Your task to perform on an android device: turn on priority inbox in the gmail app Image 0: 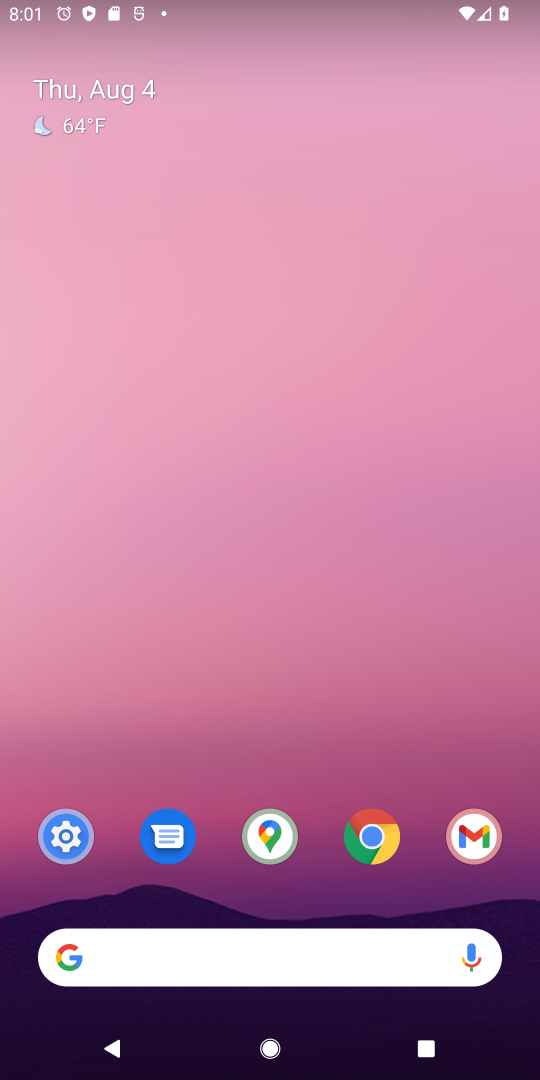
Step 0: click (483, 835)
Your task to perform on an android device: turn on priority inbox in the gmail app Image 1: 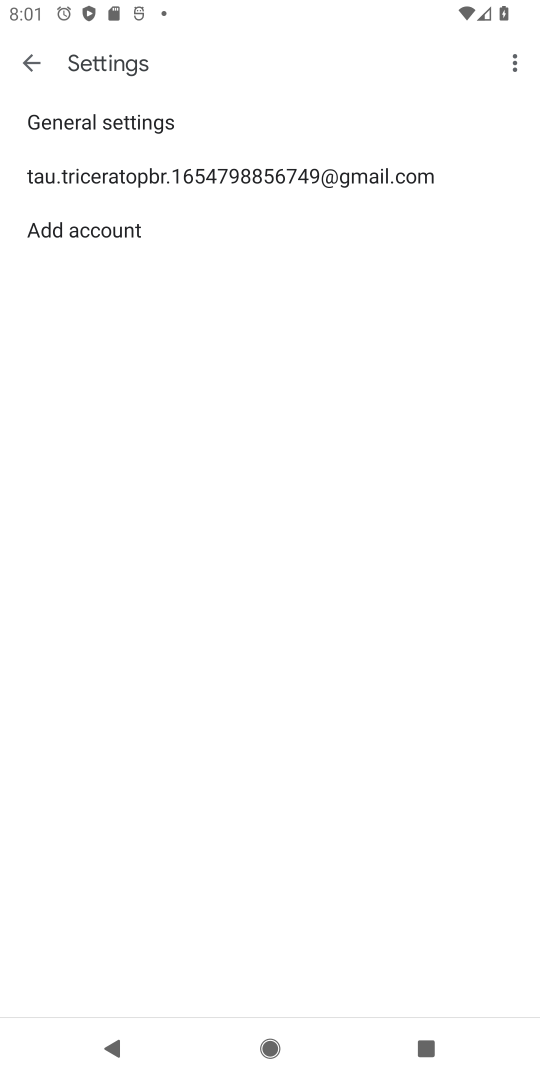
Step 1: click (38, 51)
Your task to perform on an android device: turn on priority inbox in the gmail app Image 2: 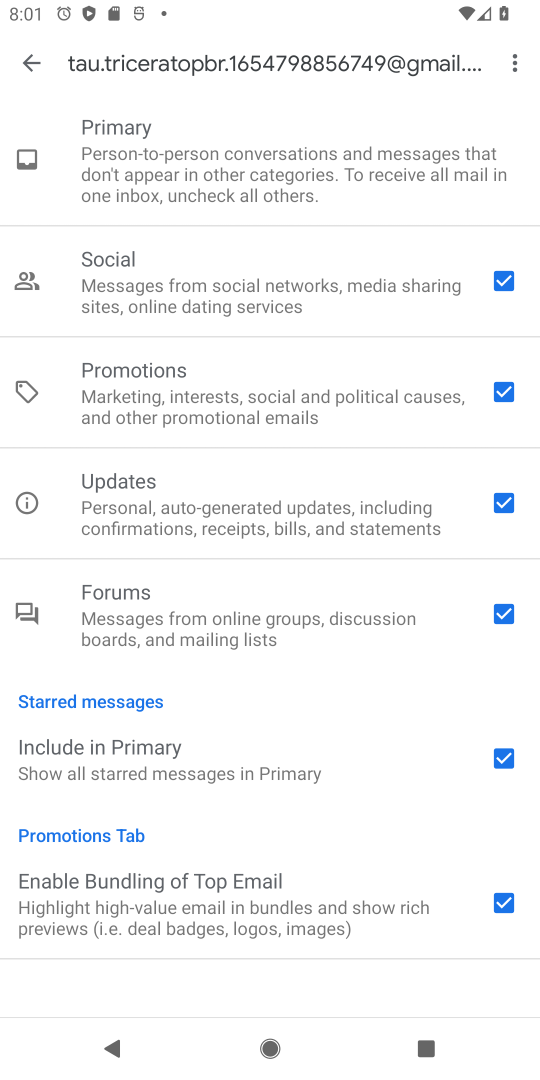
Step 2: drag from (291, 170) to (310, 1016)
Your task to perform on an android device: turn on priority inbox in the gmail app Image 3: 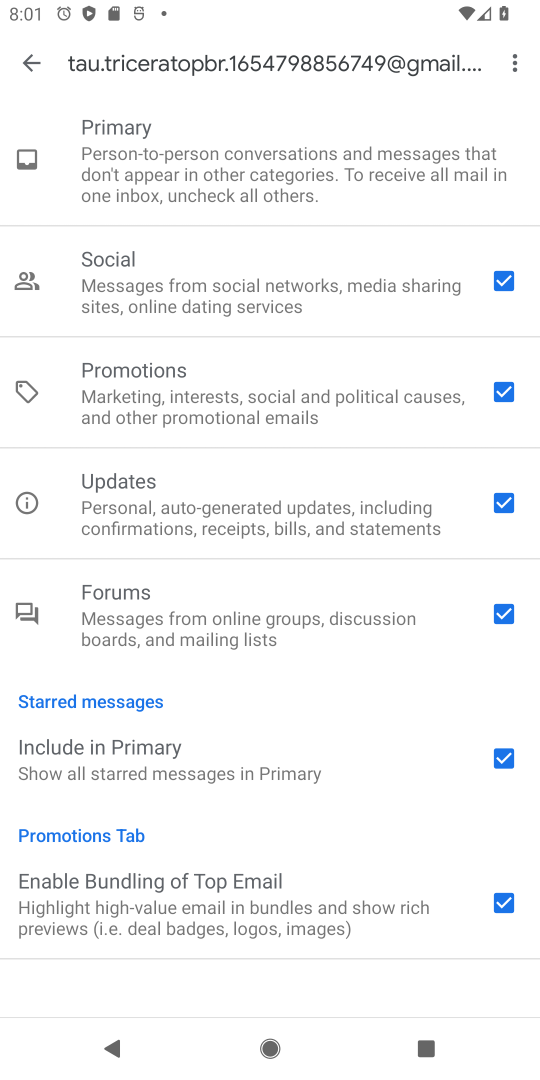
Step 3: click (22, 57)
Your task to perform on an android device: turn on priority inbox in the gmail app Image 4: 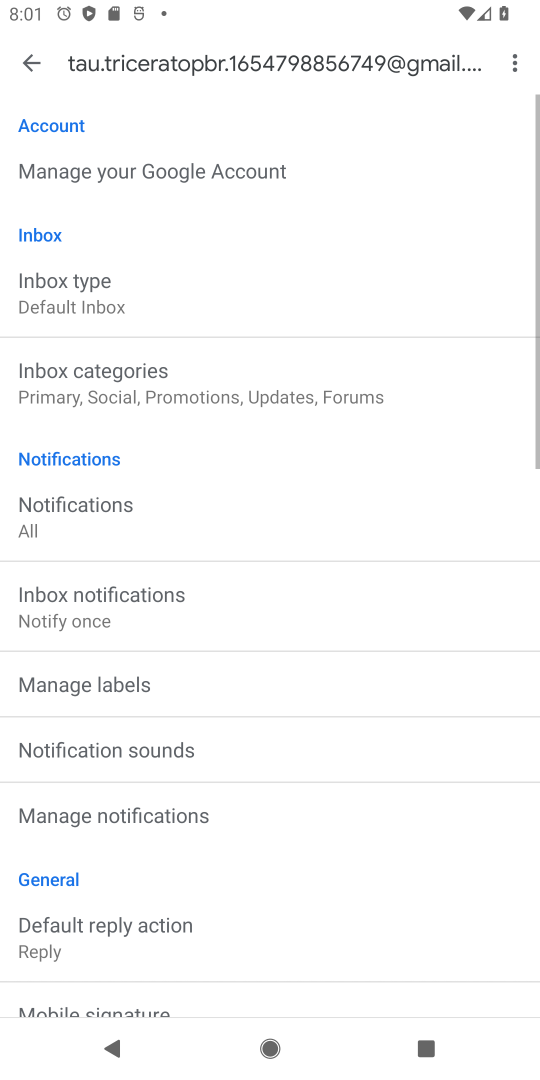
Step 4: click (195, 312)
Your task to perform on an android device: turn on priority inbox in the gmail app Image 5: 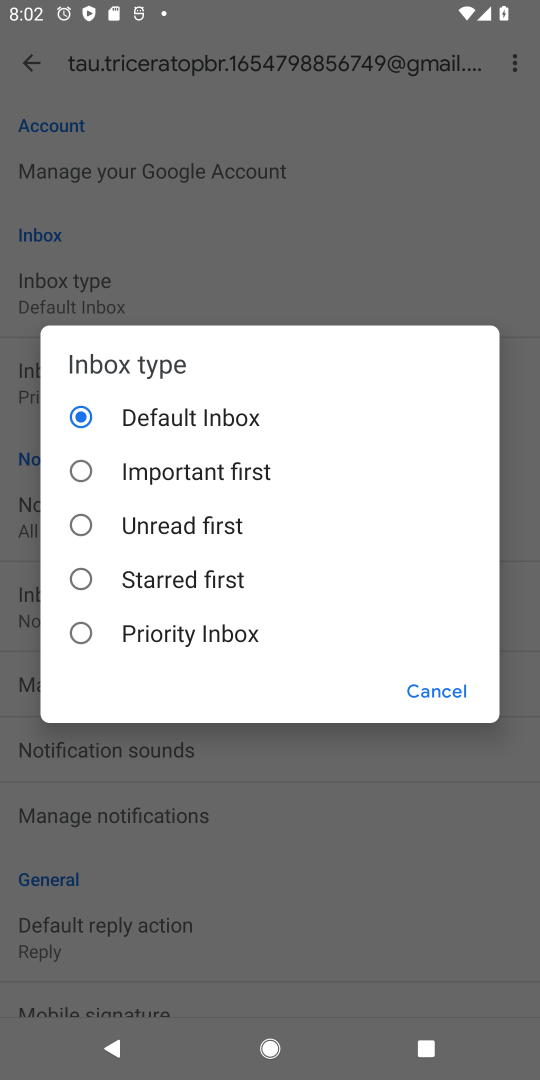
Step 5: click (86, 632)
Your task to perform on an android device: turn on priority inbox in the gmail app Image 6: 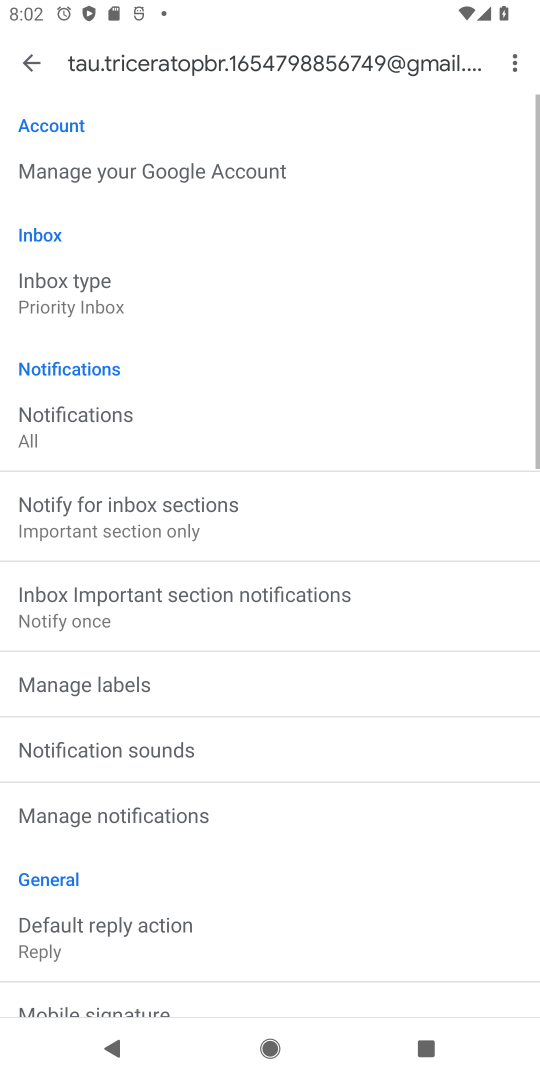
Step 6: task complete